Your task to perform on an android device: What is the recent news? Image 0: 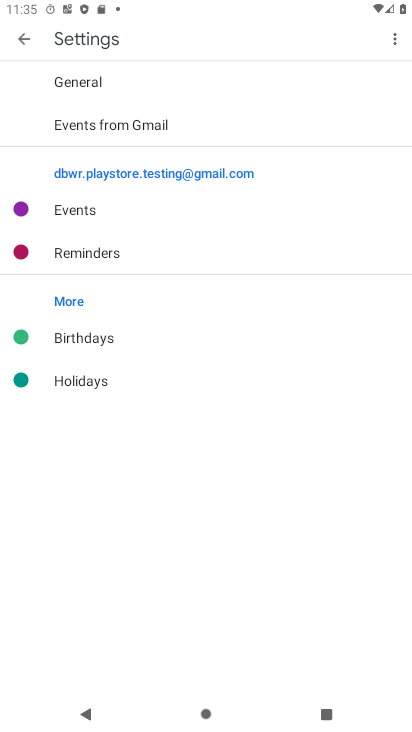
Step 0: press home button
Your task to perform on an android device: What is the recent news? Image 1: 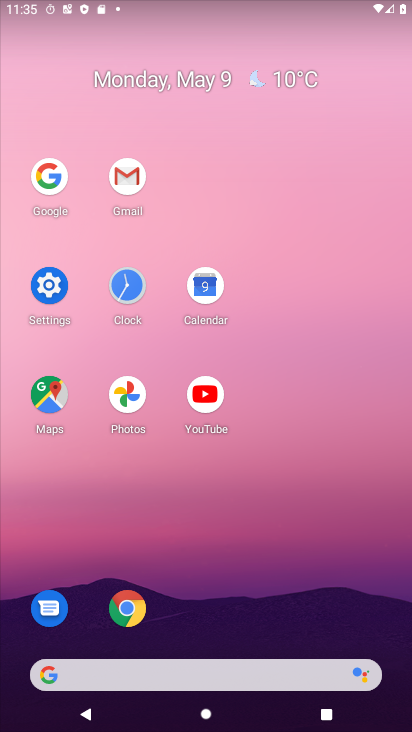
Step 1: click (56, 188)
Your task to perform on an android device: What is the recent news? Image 2: 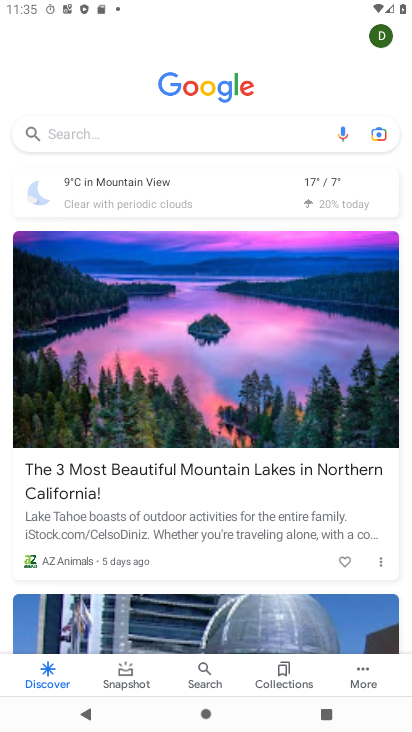
Step 2: click (180, 135)
Your task to perform on an android device: What is the recent news? Image 3: 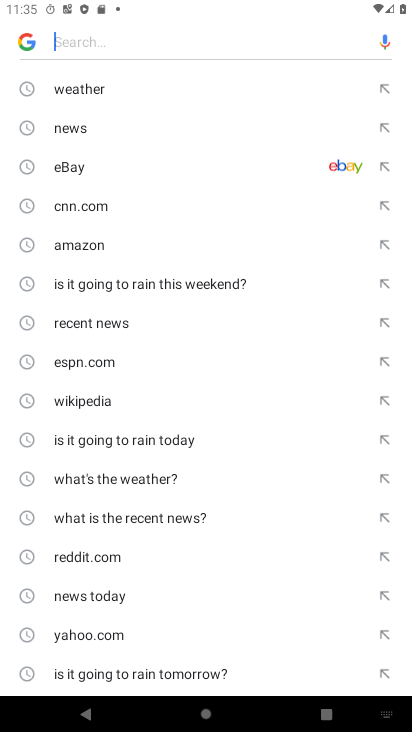
Step 3: click (92, 320)
Your task to perform on an android device: What is the recent news? Image 4: 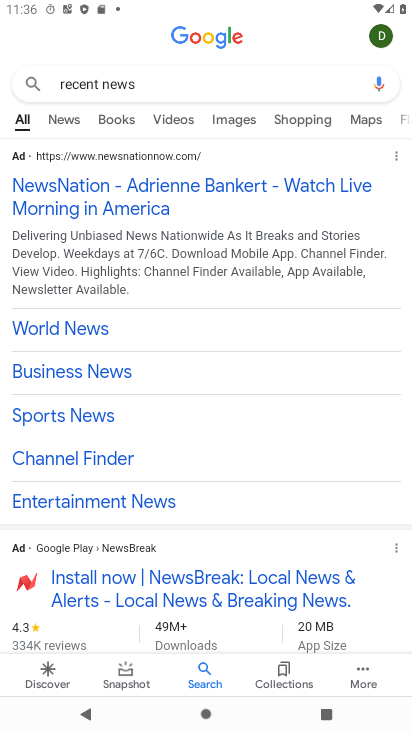
Step 4: task complete